Your task to perform on an android device: Open my contact list Image 0: 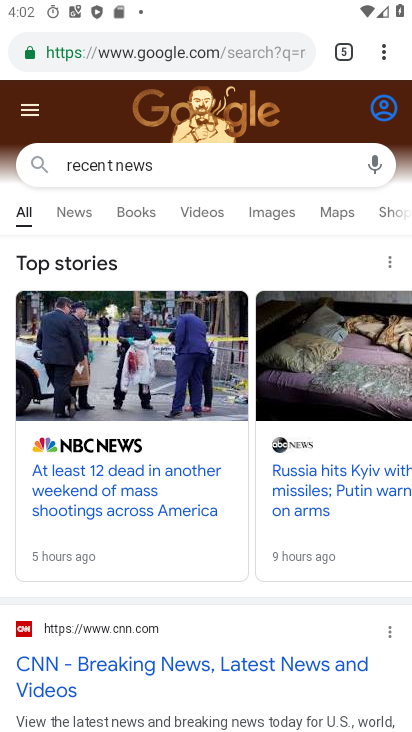
Step 0: press home button
Your task to perform on an android device: Open my contact list Image 1: 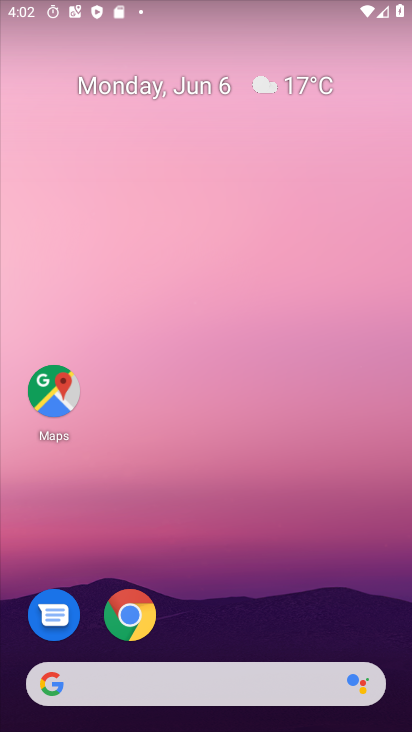
Step 1: drag from (241, 712) to (301, 12)
Your task to perform on an android device: Open my contact list Image 2: 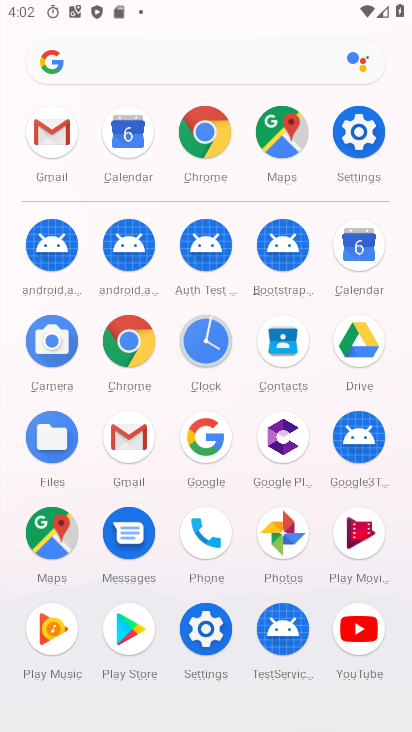
Step 2: click (286, 347)
Your task to perform on an android device: Open my contact list Image 3: 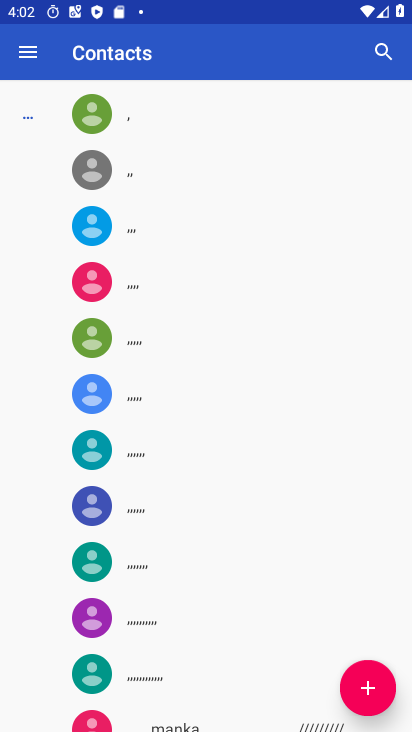
Step 3: task complete